Your task to perform on an android device: toggle location history Image 0: 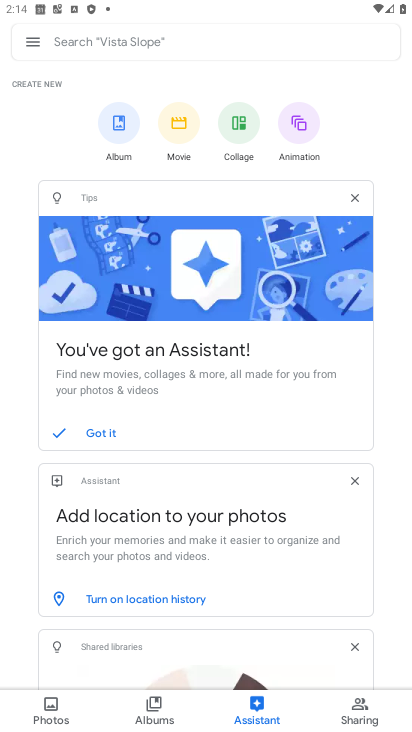
Step 0: press home button
Your task to perform on an android device: toggle location history Image 1: 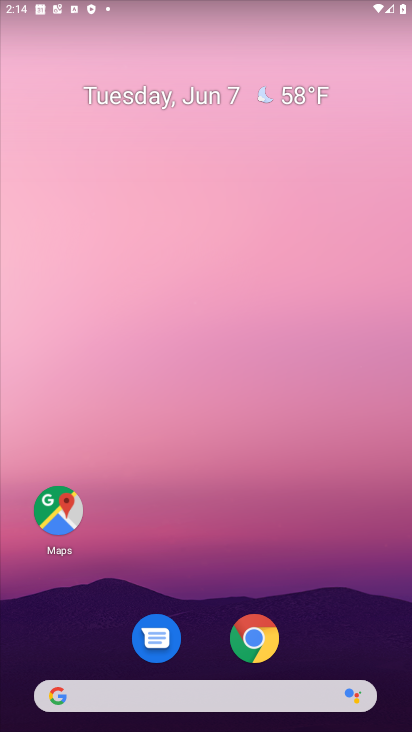
Step 1: drag from (204, 568) to (235, 275)
Your task to perform on an android device: toggle location history Image 2: 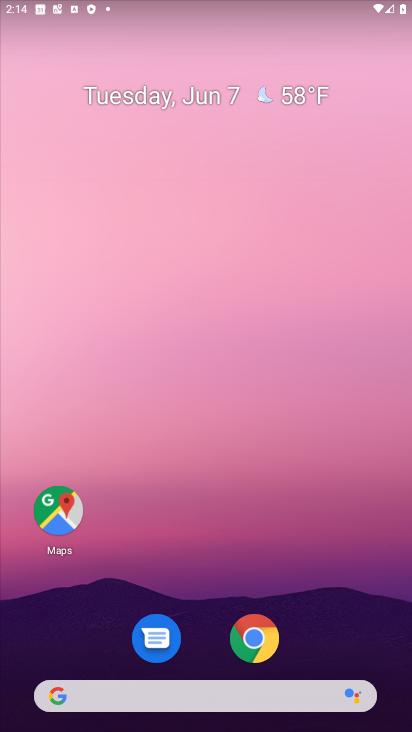
Step 2: drag from (186, 631) to (235, 221)
Your task to perform on an android device: toggle location history Image 3: 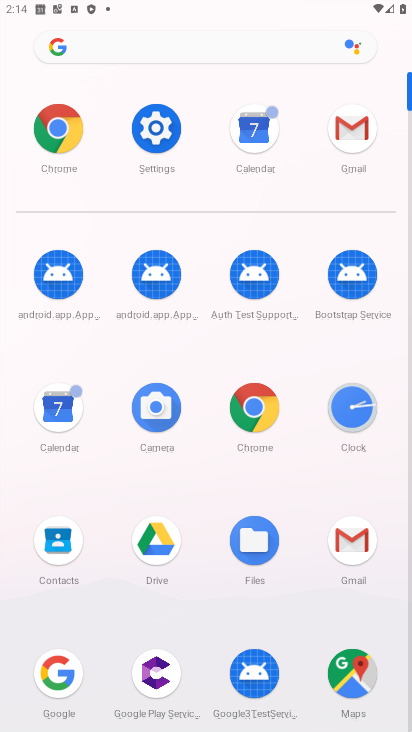
Step 3: click (160, 132)
Your task to perform on an android device: toggle location history Image 4: 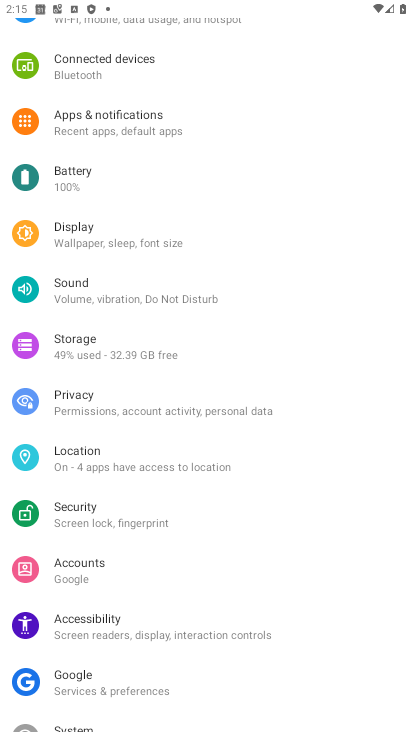
Step 4: drag from (192, 576) to (217, 130)
Your task to perform on an android device: toggle location history Image 5: 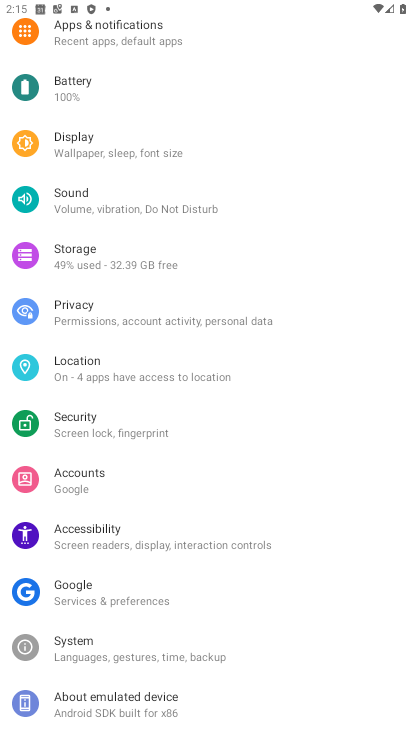
Step 5: click (151, 372)
Your task to perform on an android device: toggle location history Image 6: 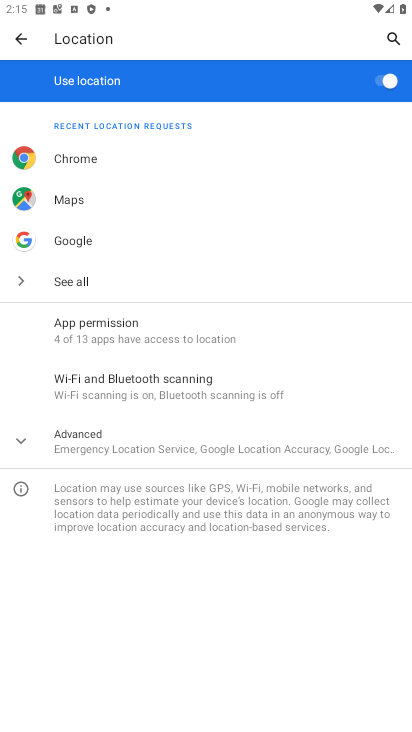
Step 6: click (78, 444)
Your task to perform on an android device: toggle location history Image 7: 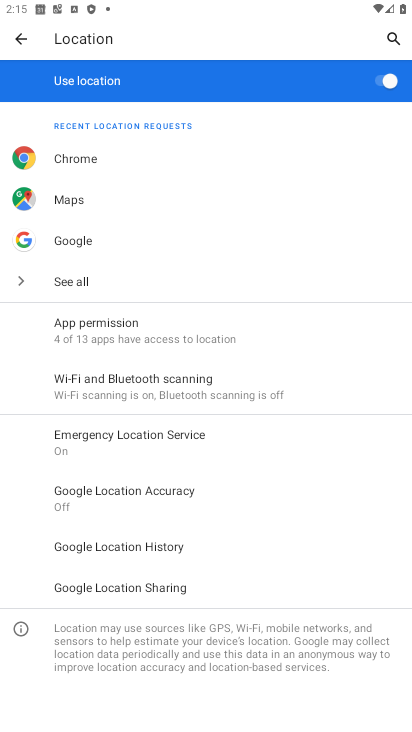
Step 7: click (122, 551)
Your task to perform on an android device: toggle location history Image 8: 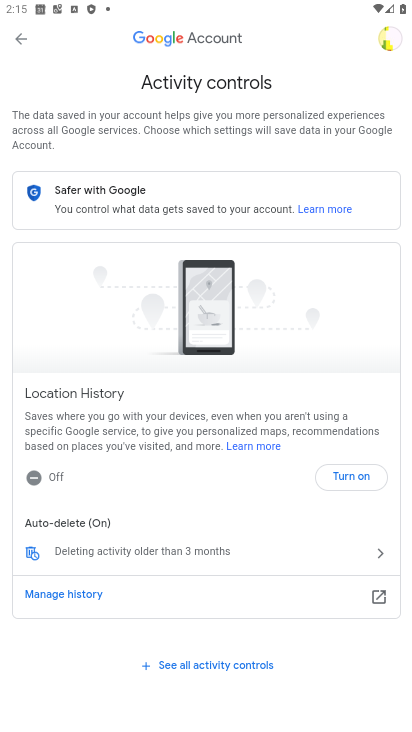
Step 8: click (358, 479)
Your task to perform on an android device: toggle location history Image 9: 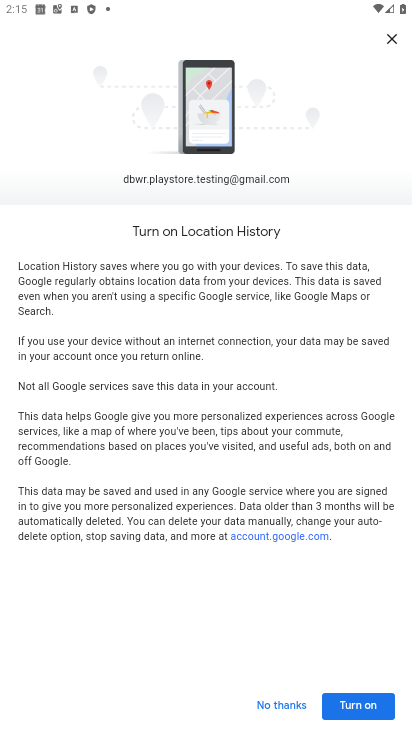
Step 9: task complete